Your task to perform on an android device: Open CNN.com Image 0: 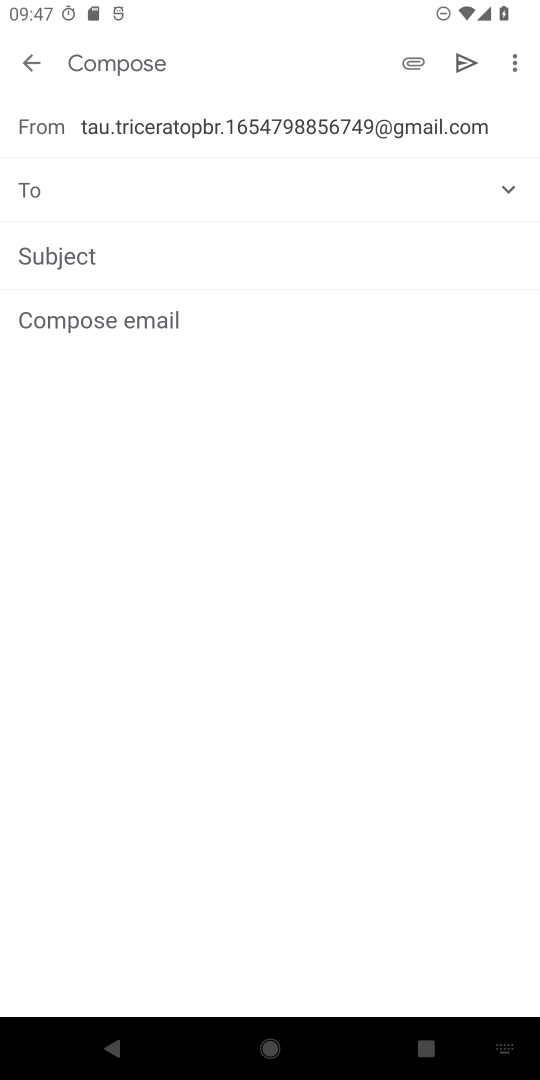
Step 0: press home button
Your task to perform on an android device: Open CNN.com Image 1: 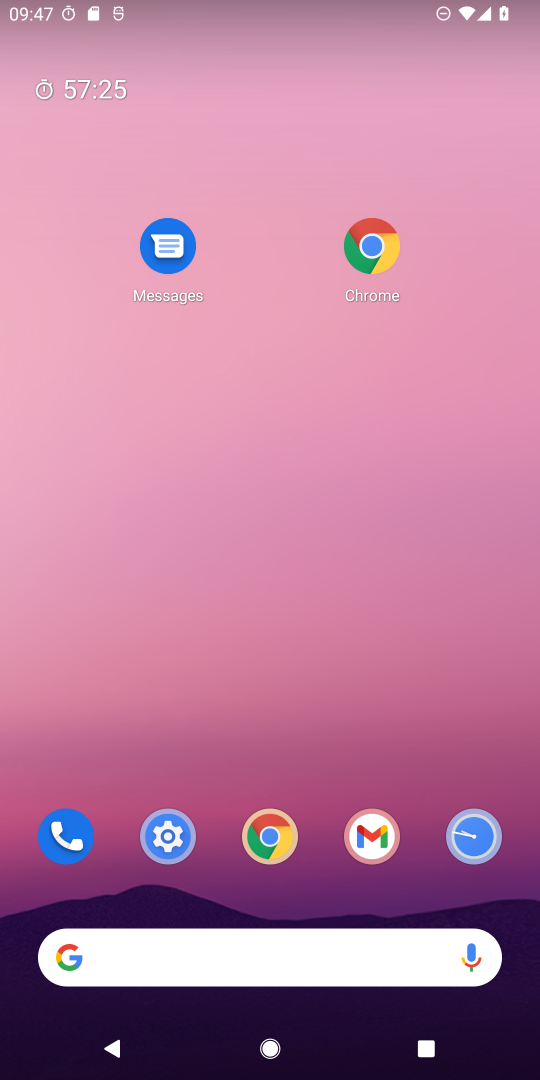
Step 1: click (364, 244)
Your task to perform on an android device: Open CNN.com Image 2: 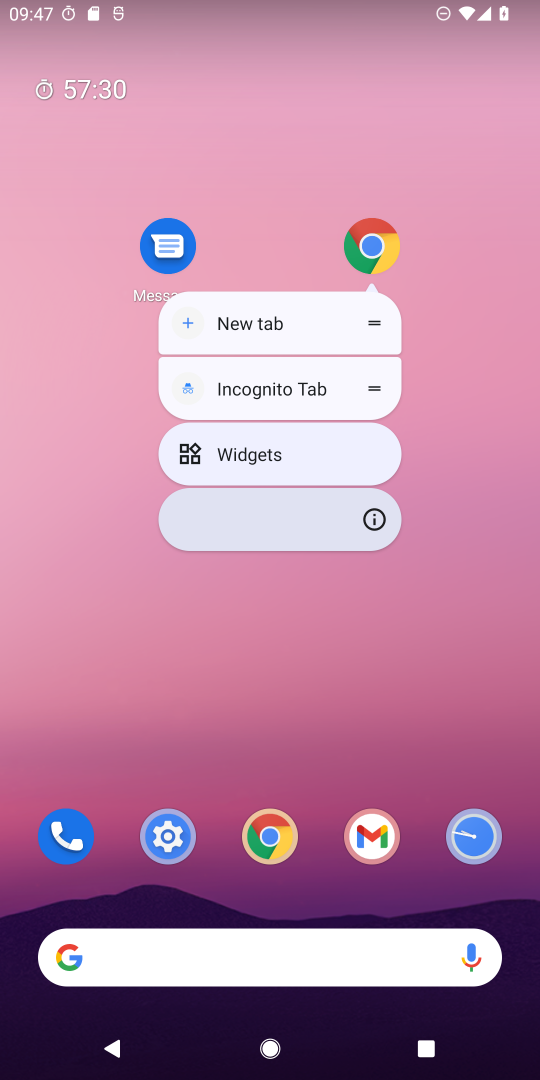
Step 2: click (362, 248)
Your task to perform on an android device: Open CNN.com Image 3: 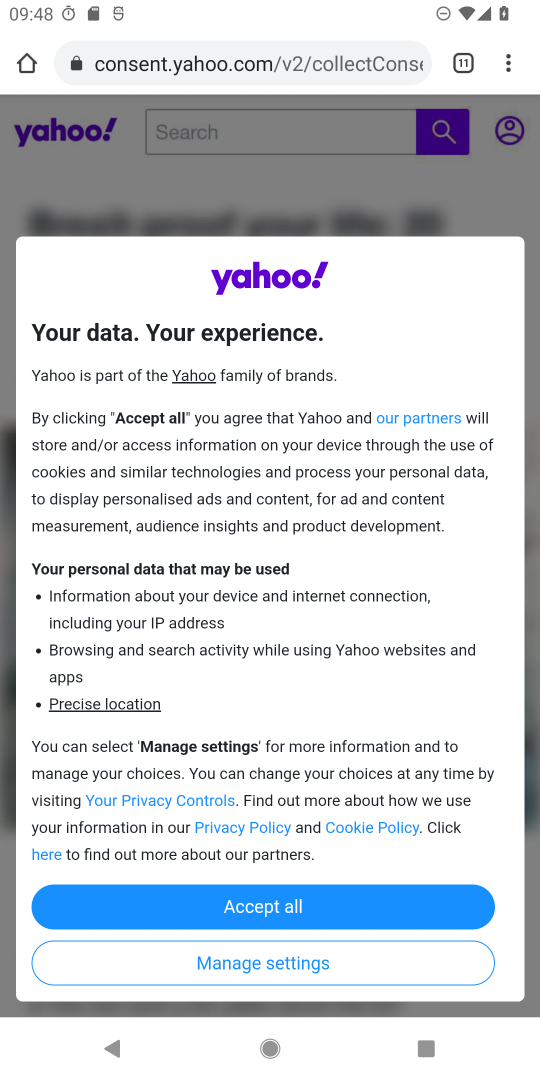
Step 3: click (500, 60)
Your task to perform on an android device: Open CNN.com Image 4: 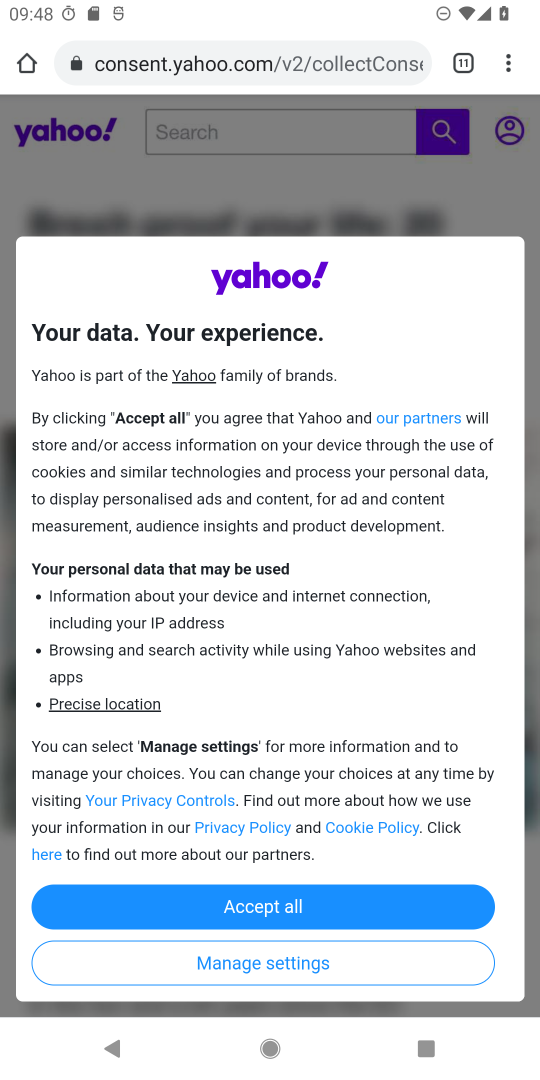
Step 4: click (500, 65)
Your task to perform on an android device: Open CNN.com Image 5: 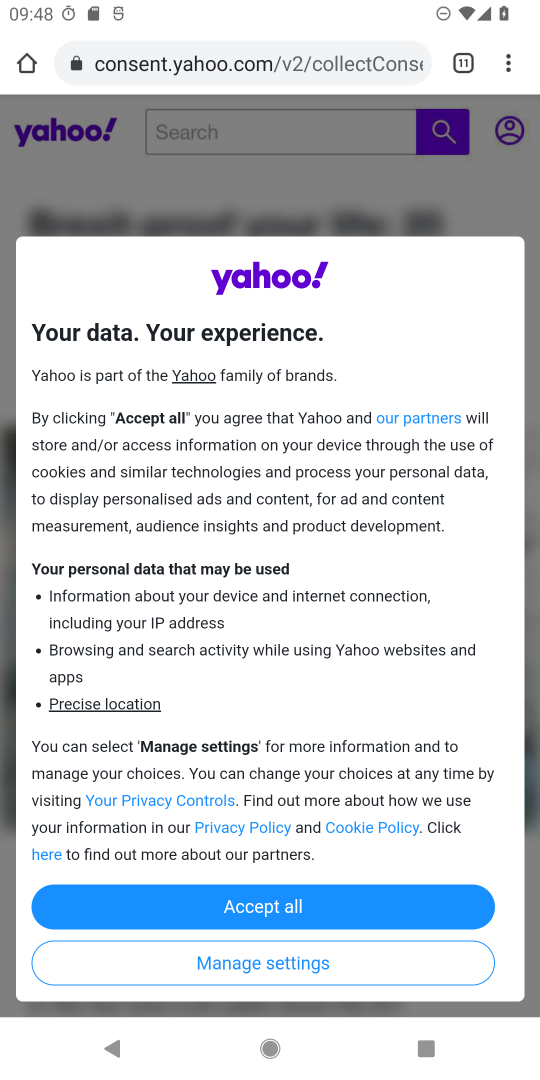
Step 5: click (498, 63)
Your task to perform on an android device: Open CNN.com Image 6: 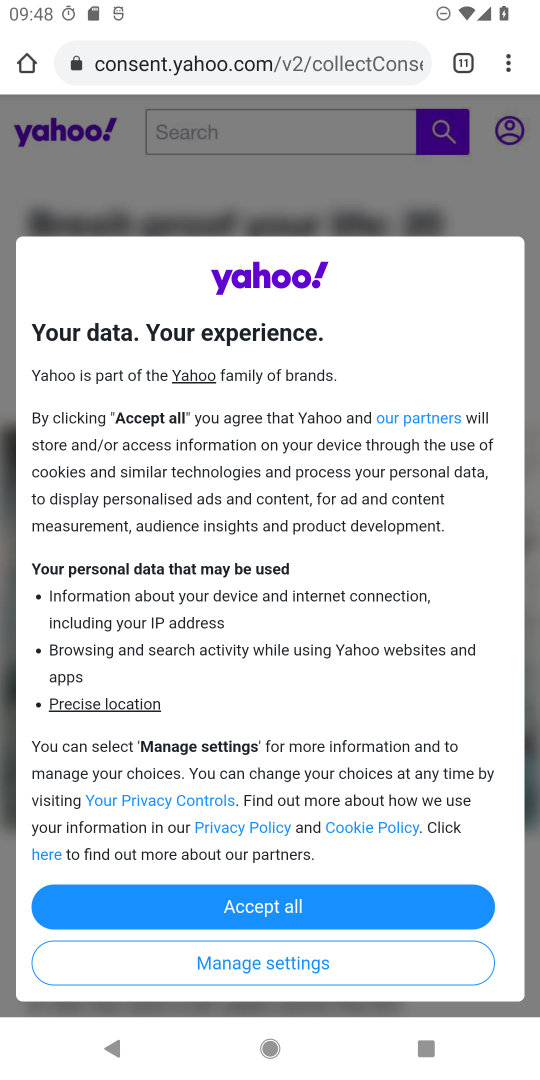
Step 6: click (495, 63)
Your task to perform on an android device: Open CNN.com Image 7: 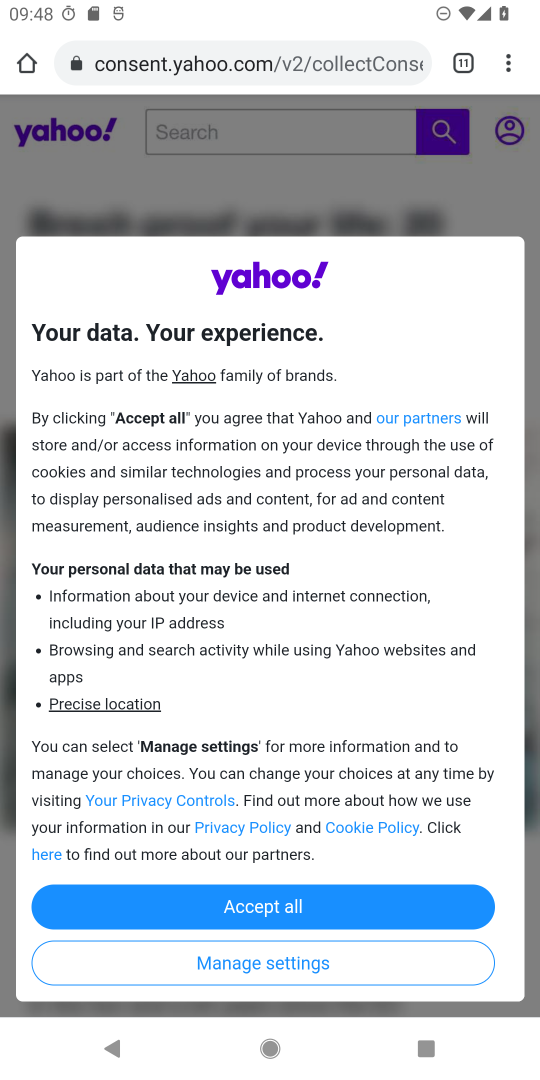
Step 7: click (488, 57)
Your task to perform on an android device: Open CNN.com Image 8: 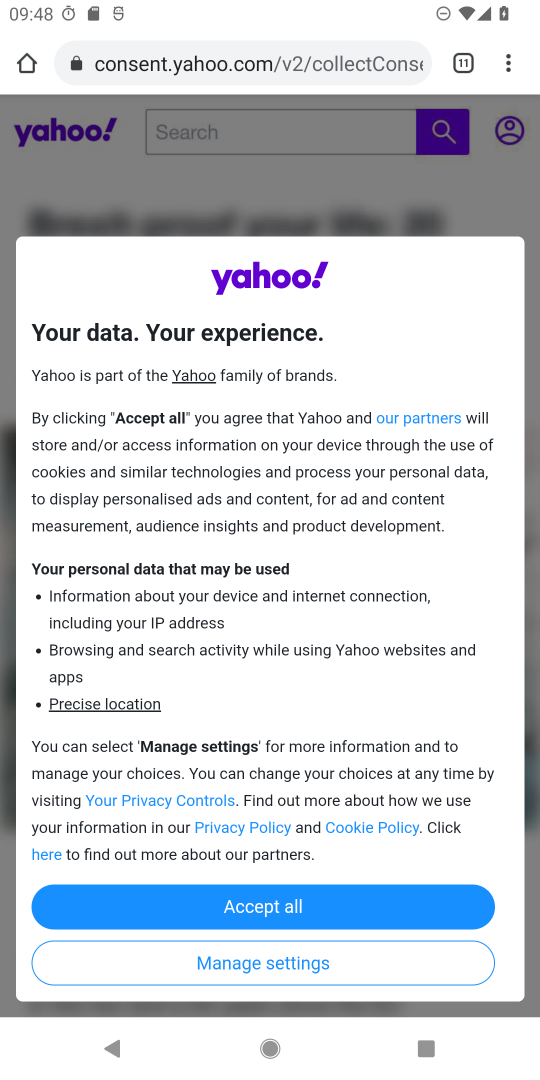
Step 8: click (503, 53)
Your task to perform on an android device: Open CNN.com Image 9: 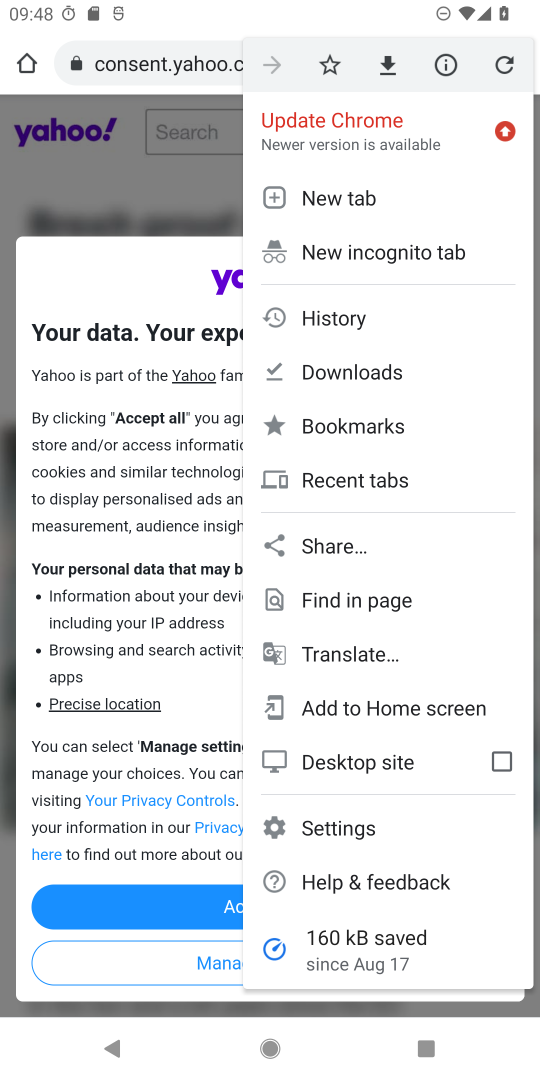
Step 9: click (328, 201)
Your task to perform on an android device: Open CNN.com Image 10: 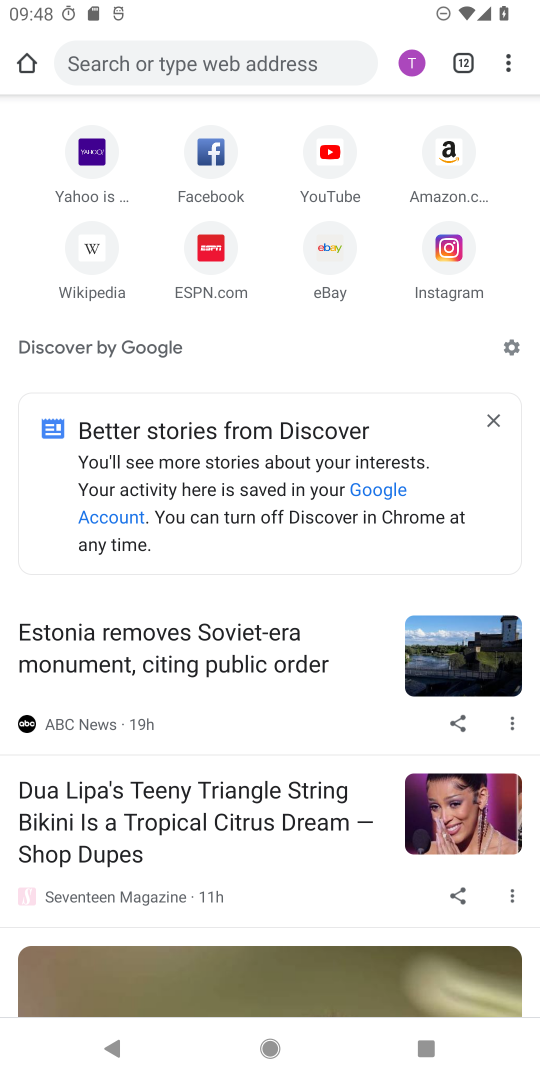
Step 10: click (204, 58)
Your task to perform on an android device: Open CNN.com Image 11: 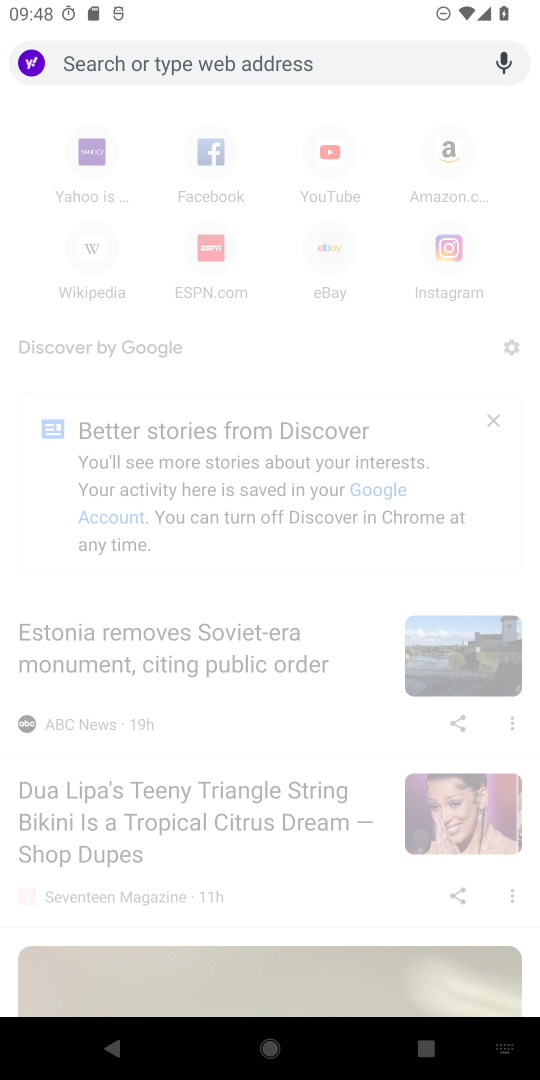
Step 11: type " CNN.com "
Your task to perform on an android device: Open CNN.com Image 12: 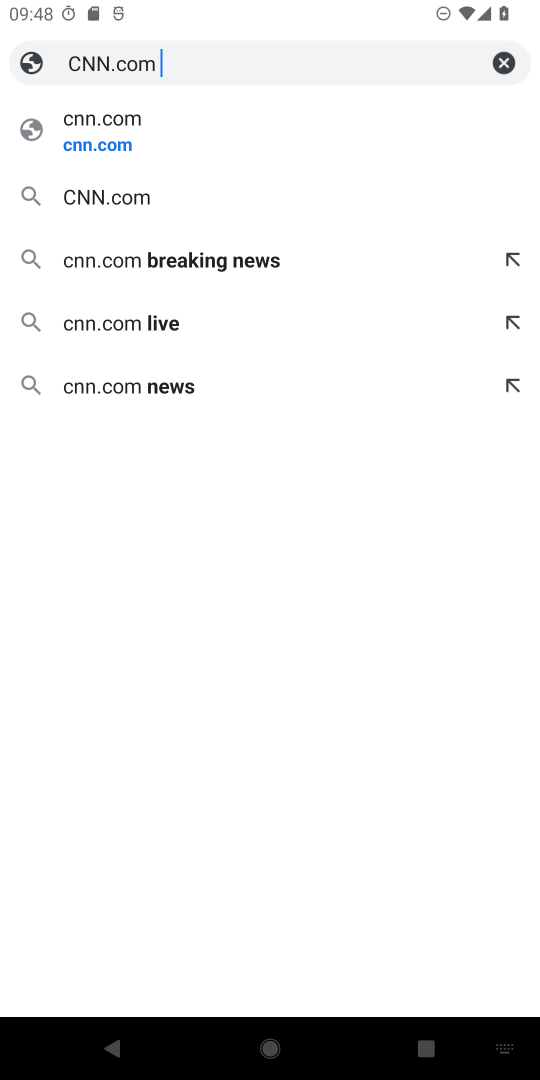
Step 12: click (102, 127)
Your task to perform on an android device: Open CNN.com Image 13: 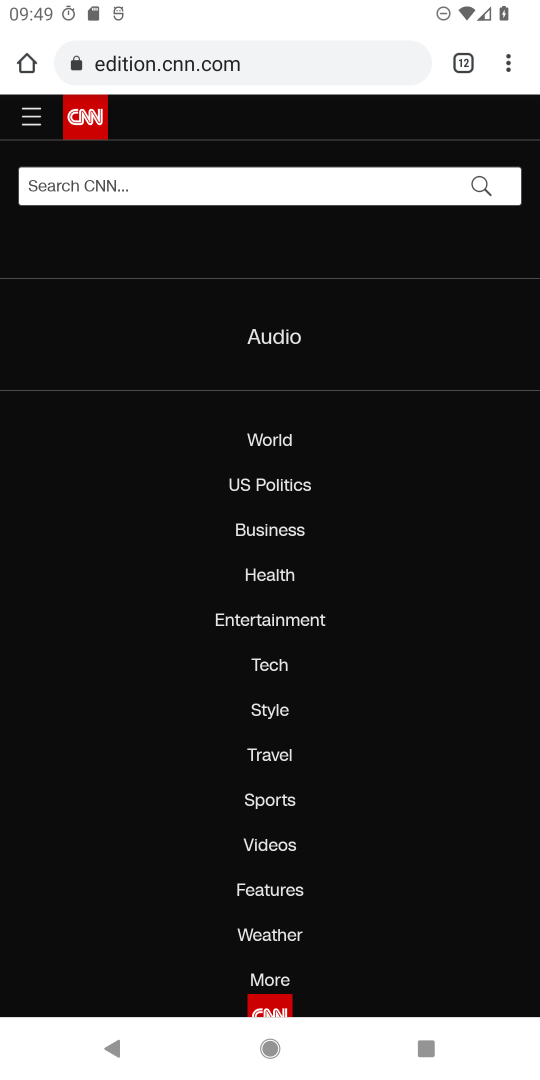
Step 13: task complete